Your task to perform on an android device: open the mobile data screen to see how much data has been used Image 0: 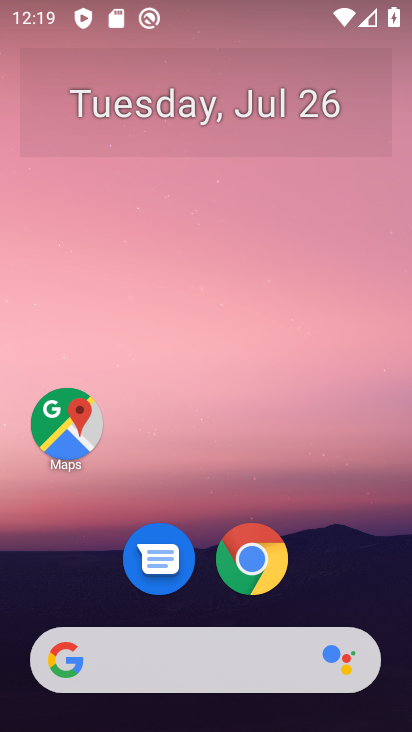
Step 0: drag from (94, 534) to (30, 10)
Your task to perform on an android device: open the mobile data screen to see how much data has been used Image 1: 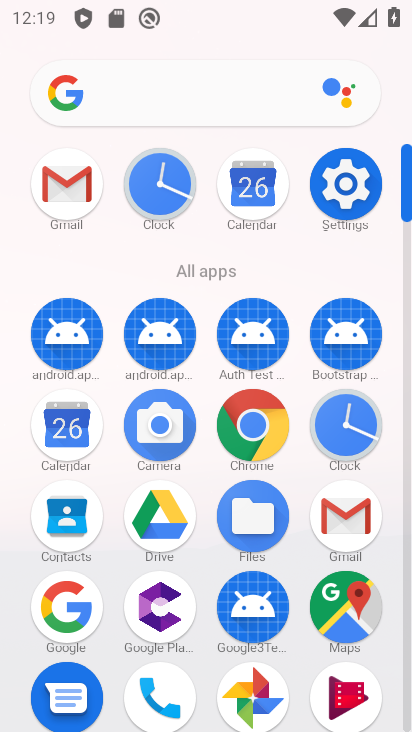
Step 1: click (348, 194)
Your task to perform on an android device: open the mobile data screen to see how much data has been used Image 2: 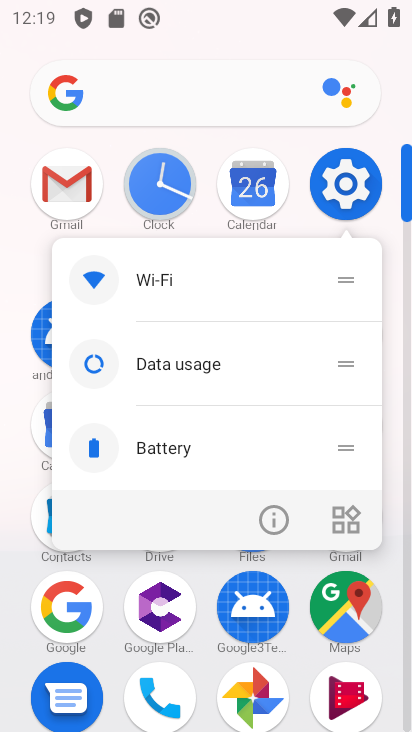
Step 2: click (347, 193)
Your task to perform on an android device: open the mobile data screen to see how much data has been used Image 3: 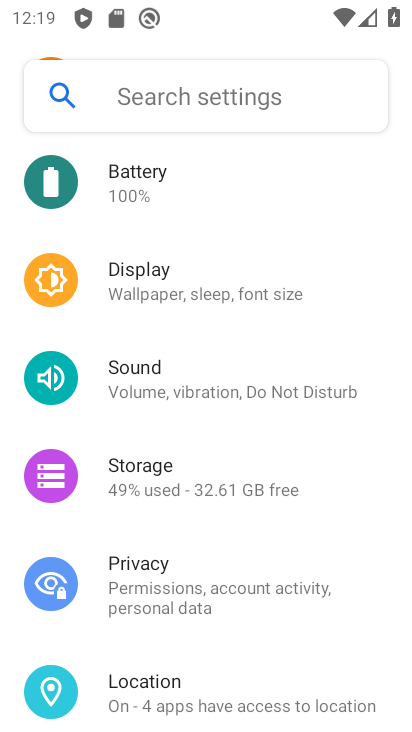
Step 3: drag from (219, 248) to (219, 626)
Your task to perform on an android device: open the mobile data screen to see how much data has been used Image 4: 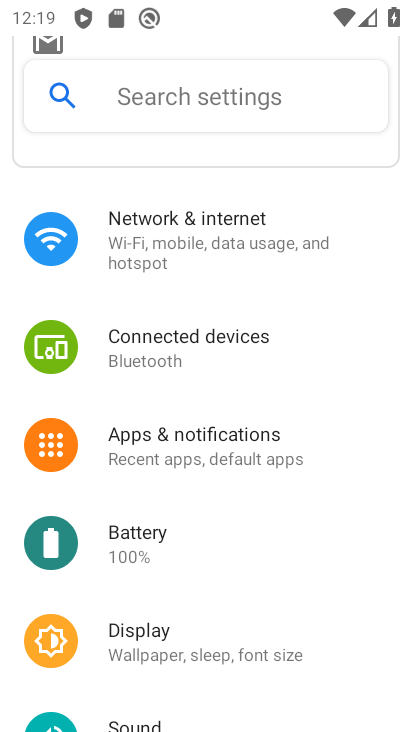
Step 4: click (193, 267)
Your task to perform on an android device: open the mobile data screen to see how much data has been used Image 5: 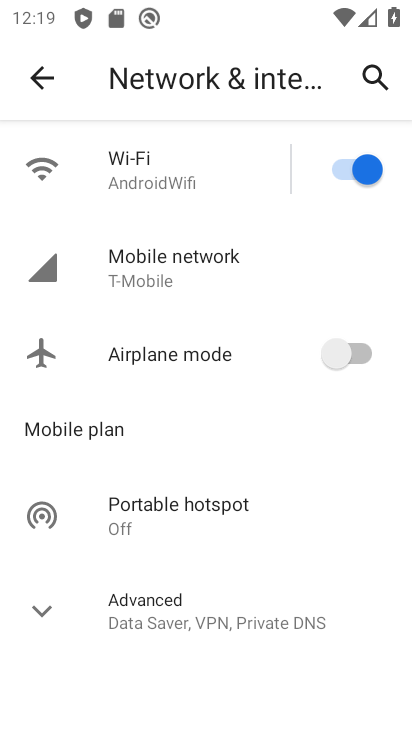
Step 5: click (167, 253)
Your task to perform on an android device: open the mobile data screen to see how much data has been used Image 6: 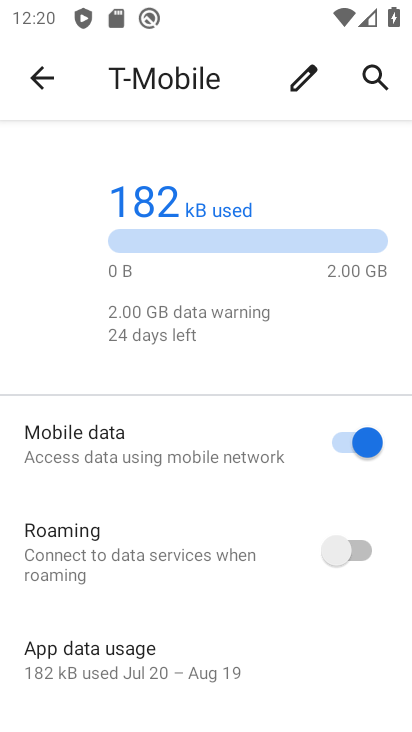
Step 6: click (162, 663)
Your task to perform on an android device: open the mobile data screen to see how much data has been used Image 7: 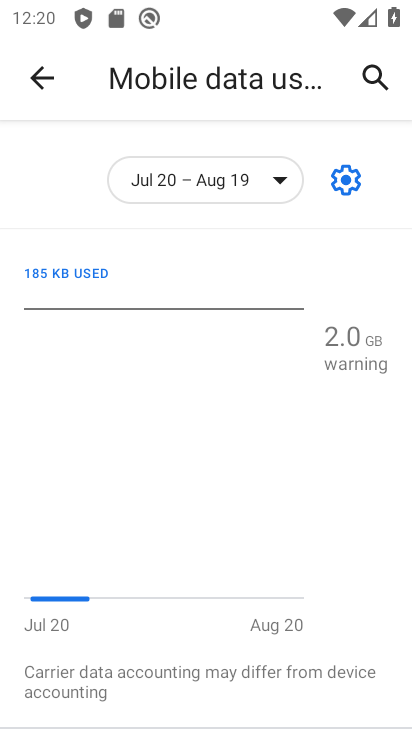
Step 7: task complete